Your task to perform on an android device: see sites visited before in the chrome app Image 0: 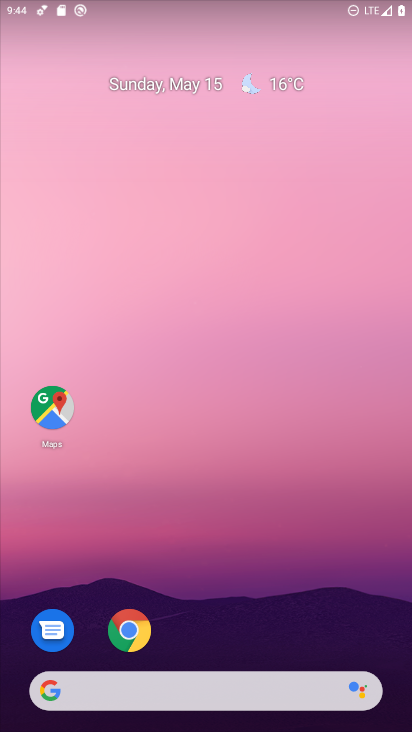
Step 0: drag from (211, 646) to (150, 87)
Your task to perform on an android device: see sites visited before in the chrome app Image 1: 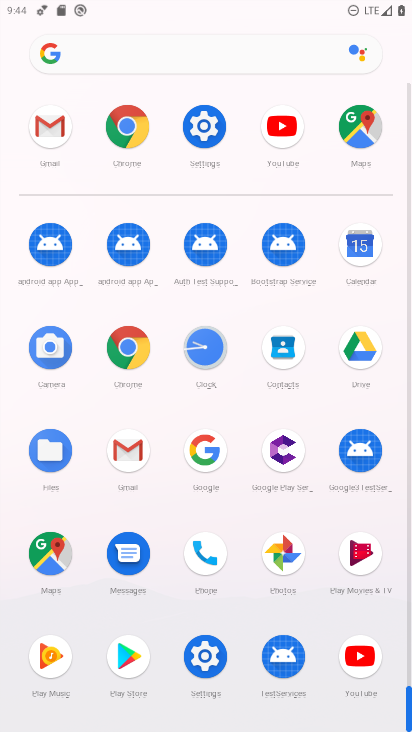
Step 1: click (121, 348)
Your task to perform on an android device: see sites visited before in the chrome app Image 2: 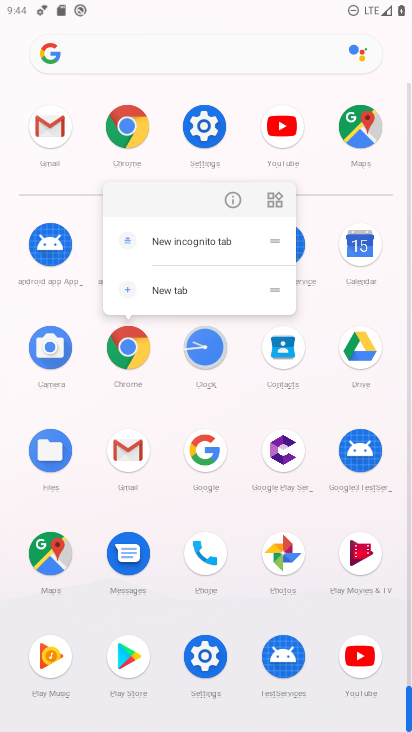
Step 2: click (226, 204)
Your task to perform on an android device: see sites visited before in the chrome app Image 3: 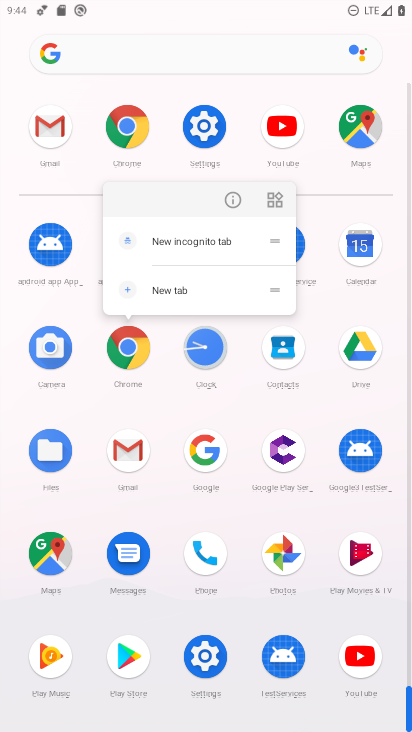
Step 3: click (226, 204)
Your task to perform on an android device: see sites visited before in the chrome app Image 4: 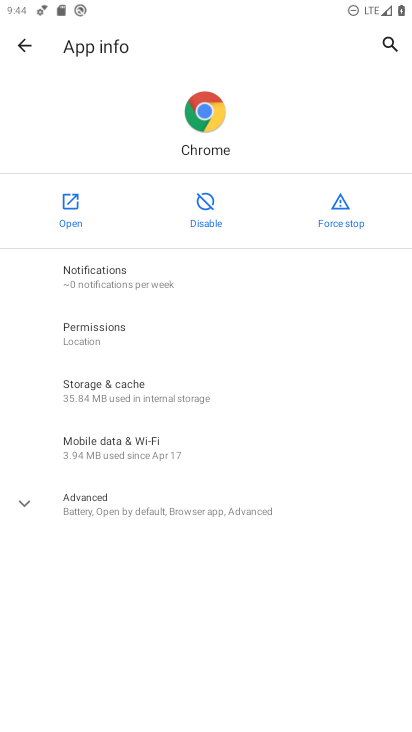
Step 4: click (74, 223)
Your task to perform on an android device: see sites visited before in the chrome app Image 5: 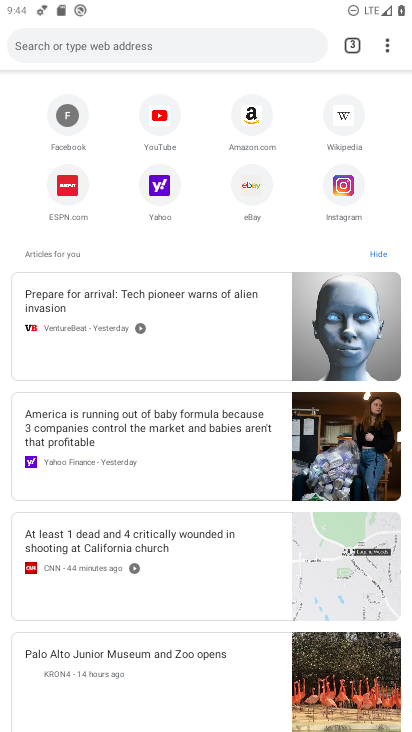
Step 5: click (386, 45)
Your task to perform on an android device: see sites visited before in the chrome app Image 6: 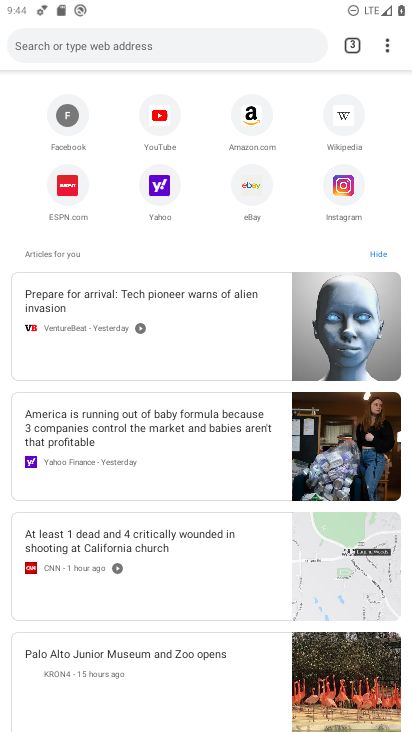
Step 6: click (383, 45)
Your task to perform on an android device: see sites visited before in the chrome app Image 7: 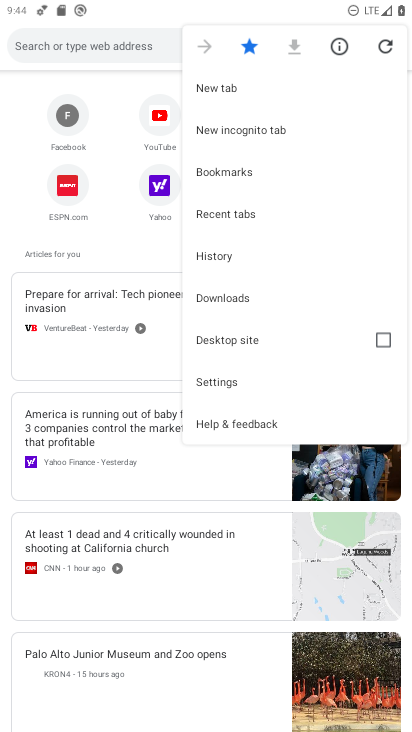
Step 7: click (267, 174)
Your task to perform on an android device: see sites visited before in the chrome app Image 8: 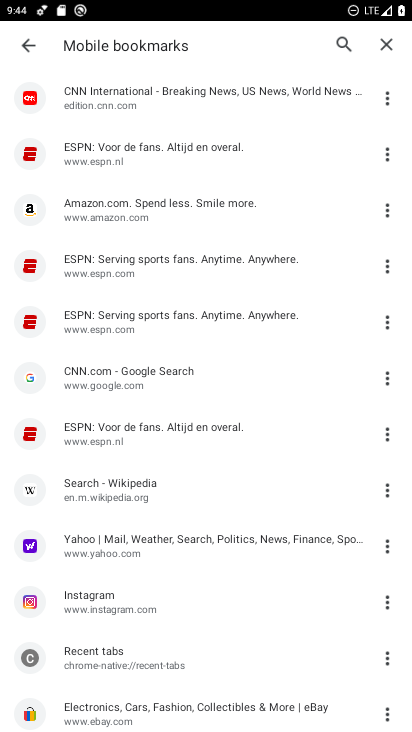
Step 8: task complete